Your task to perform on an android device: toggle priority inbox in the gmail app Image 0: 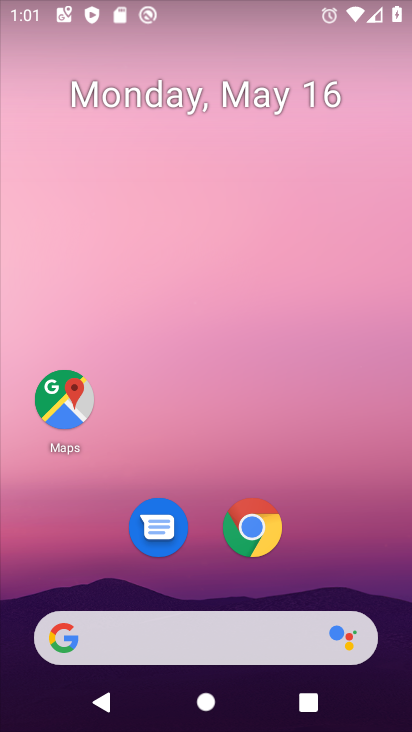
Step 0: drag from (339, 559) to (272, 9)
Your task to perform on an android device: toggle priority inbox in the gmail app Image 1: 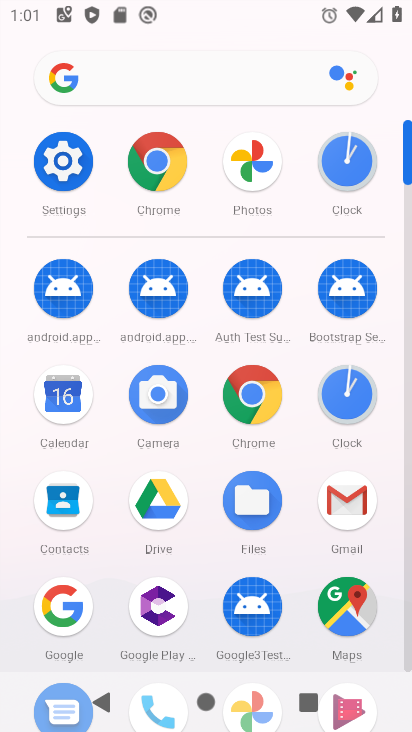
Step 1: click (353, 509)
Your task to perform on an android device: toggle priority inbox in the gmail app Image 2: 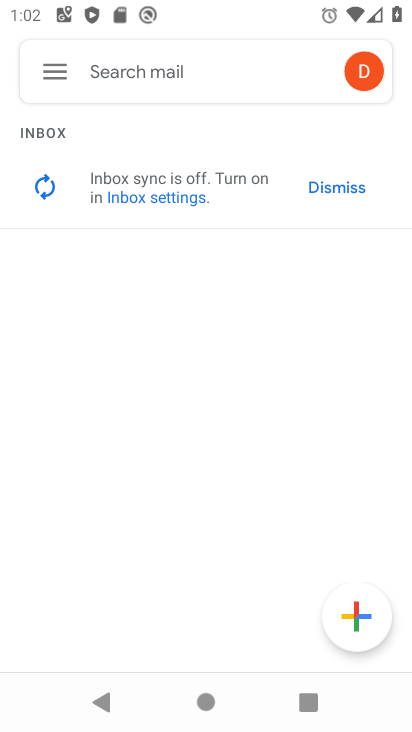
Step 2: click (35, 88)
Your task to perform on an android device: toggle priority inbox in the gmail app Image 3: 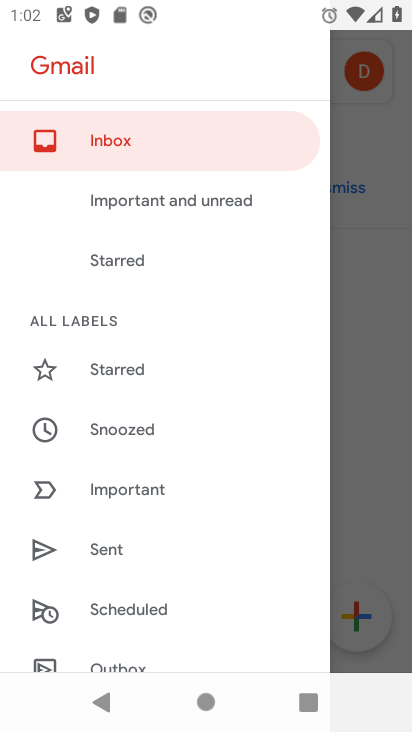
Step 3: drag from (88, 626) to (108, 316)
Your task to perform on an android device: toggle priority inbox in the gmail app Image 4: 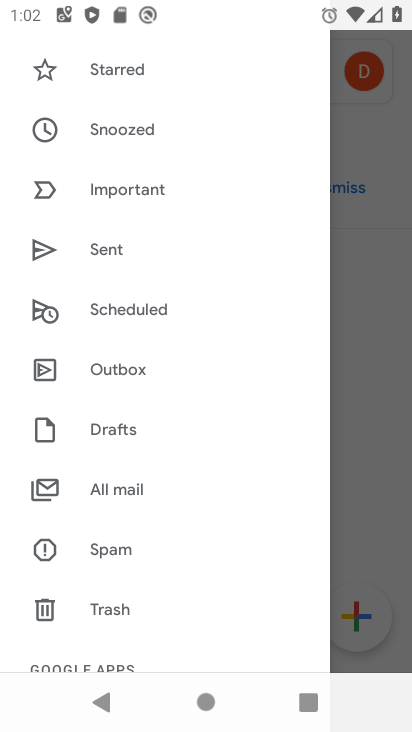
Step 4: drag from (85, 659) to (103, 193)
Your task to perform on an android device: toggle priority inbox in the gmail app Image 5: 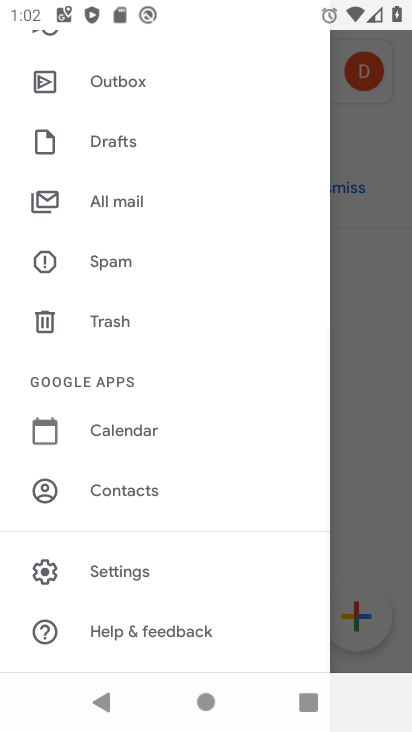
Step 5: click (111, 581)
Your task to perform on an android device: toggle priority inbox in the gmail app Image 6: 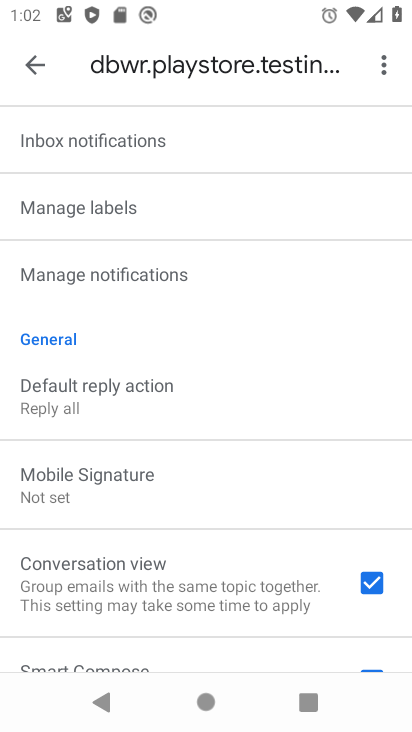
Step 6: drag from (98, 178) to (120, 391)
Your task to perform on an android device: toggle priority inbox in the gmail app Image 7: 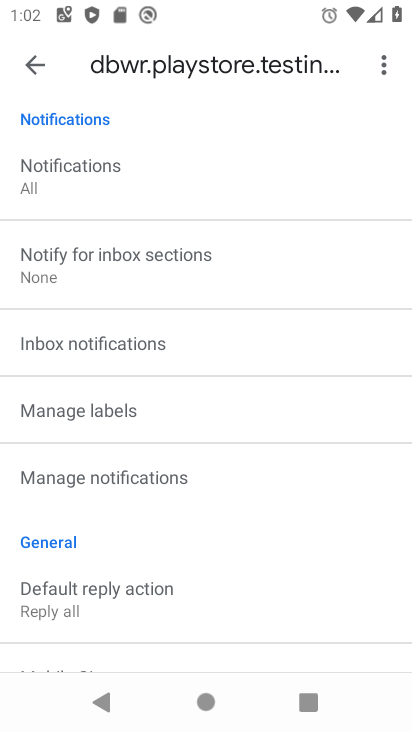
Step 7: click (115, 256)
Your task to perform on an android device: toggle priority inbox in the gmail app Image 8: 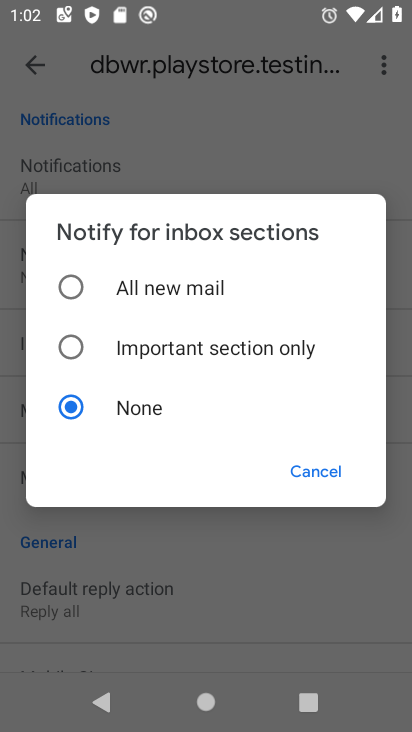
Step 8: click (303, 471)
Your task to perform on an android device: toggle priority inbox in the gmail app Image 9: 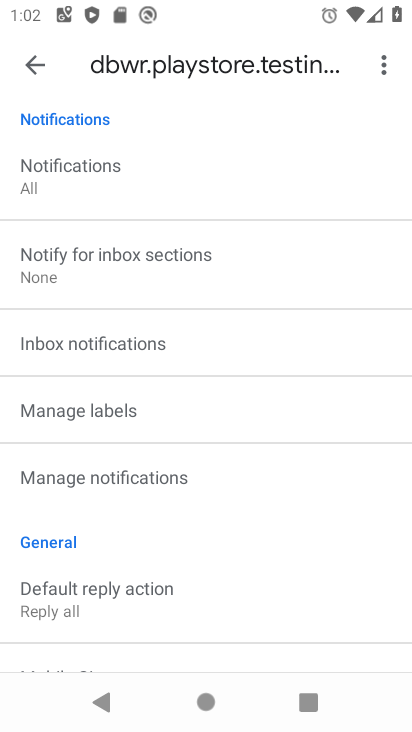
Step 9: click (206, 354)
Your task to perform on an android device: toggle priority inbox in the gmail app Image 10: 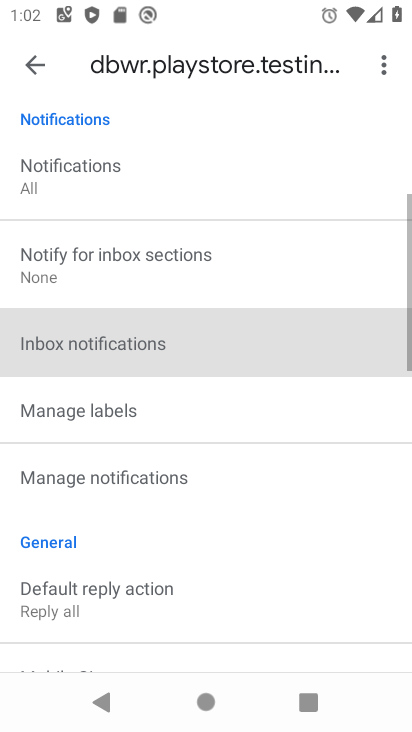
Step 10: drag from (197, 423) to (182, 292)
Your task to perform on an android device: toggle priority inbox in the gmail app Image 11: 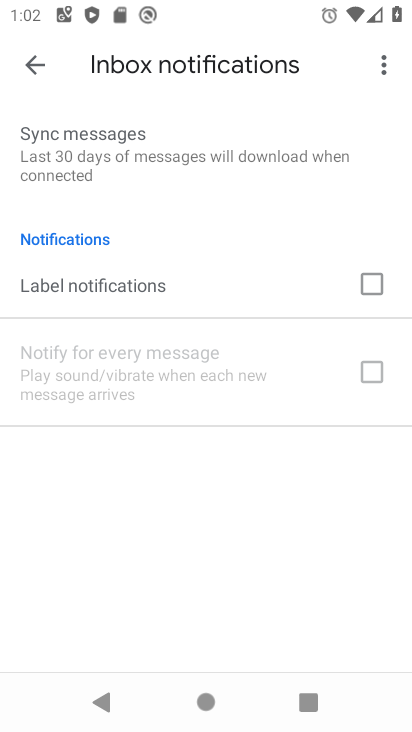
Step 11: click (37, 70)
Your task to perform on an android device: toggle priority inbox in the gmail app Image 12: 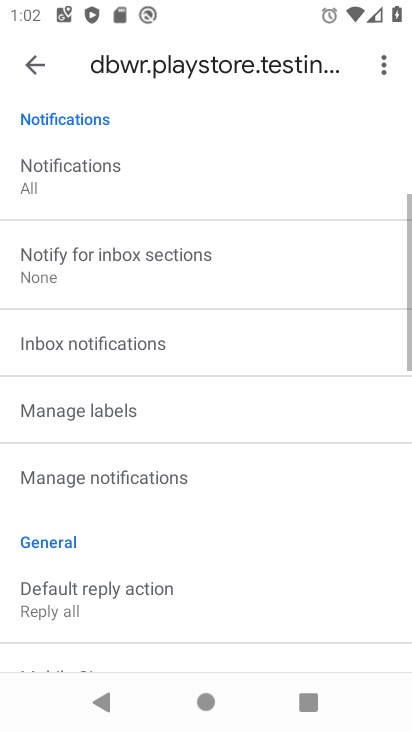
Step 12: task complete